Your task to perform on an android device: Open calendar and show me the second week of next month Image 0: 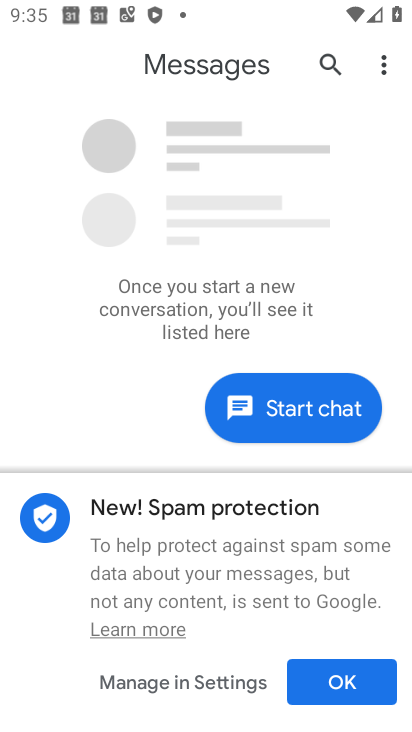
Step 0: press home button
Your task to perform on an android device: Open calendar and show me the second week of next month Image 1: 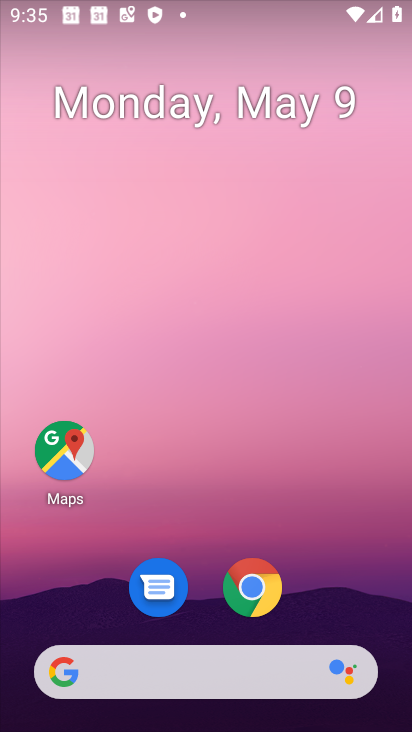
Step 1: click (201, 107)
Your task to perform on an android device: Open calendar and show me the second week of next month Image 2: 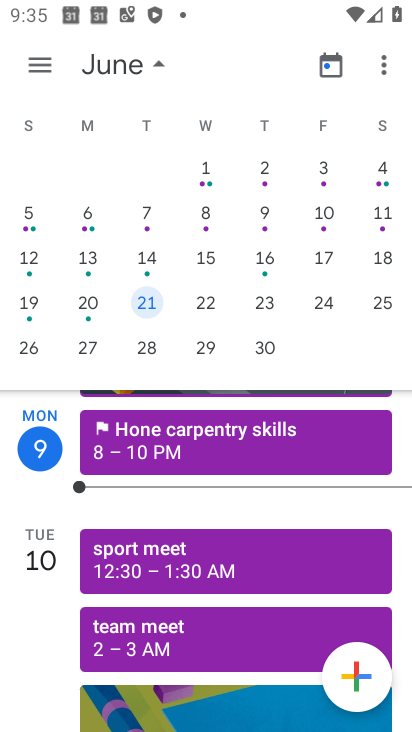
Step 2: click (254, 222)
Your task to perform on an android device: Open calendar and show me the second week of next month Image 3: 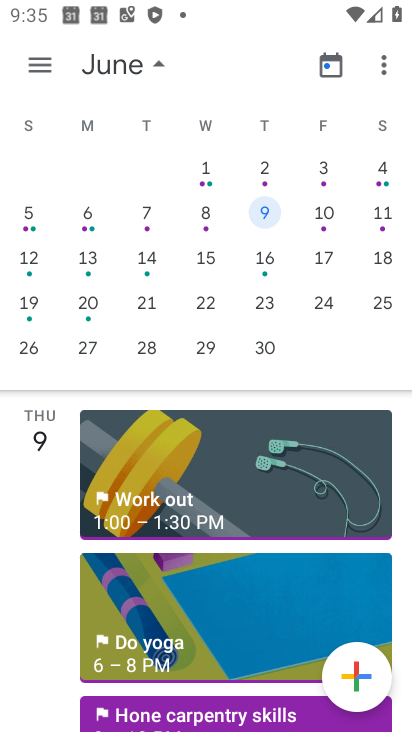
Step 3: task complete